Your task to perform on an android device: turn on sleep mode Image 0: 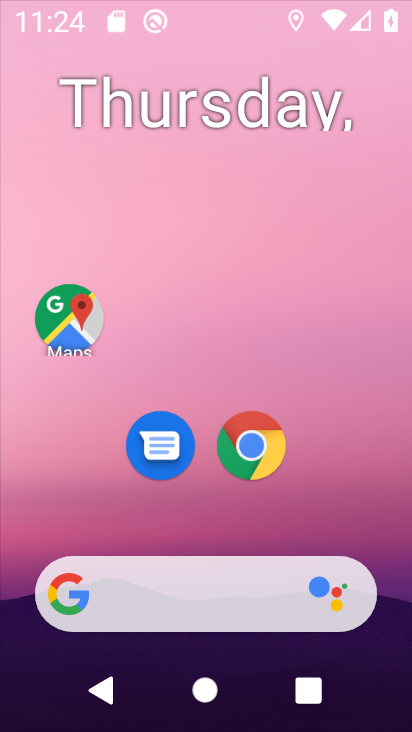
Step 0: click (188, 33)
Your task to perform on an android device: turn on sleep mode Image 1: 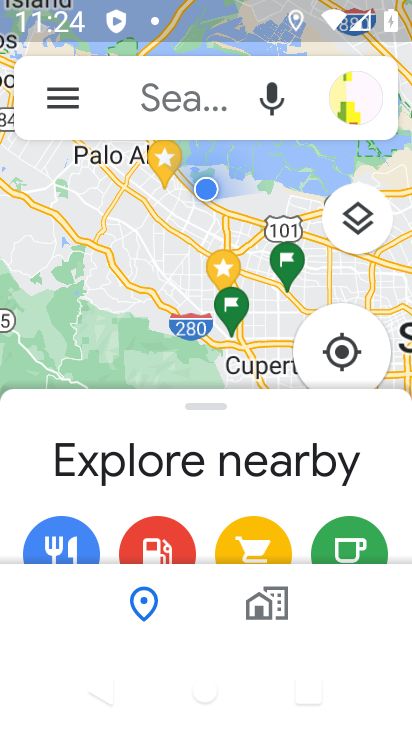
Step 1: press home button
Your task to perform on an android device: turn on sleep mode Image 2: 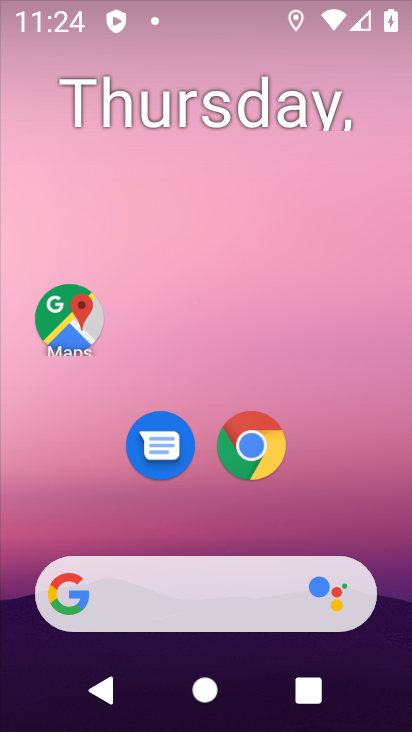
Step 2: drag from (367, 660) to (283, 107)
Your task to perform on an android device: turn on sleep mode Image 3: 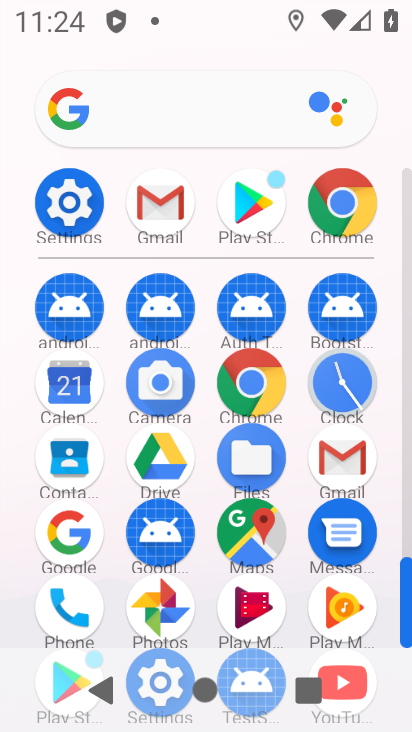
Step 3: click (78, 212)
Your task to perform on an android device: turn on sleep mode Image 4: 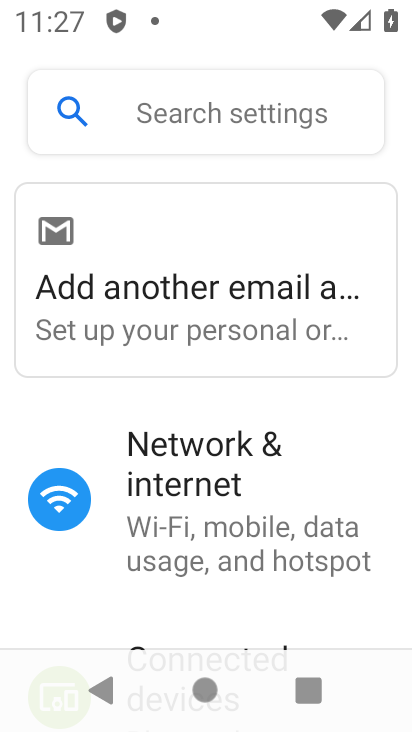
Step 4: task complete